Your task to perform on an android device: toggle priority inbox in the gmail app Image 0: 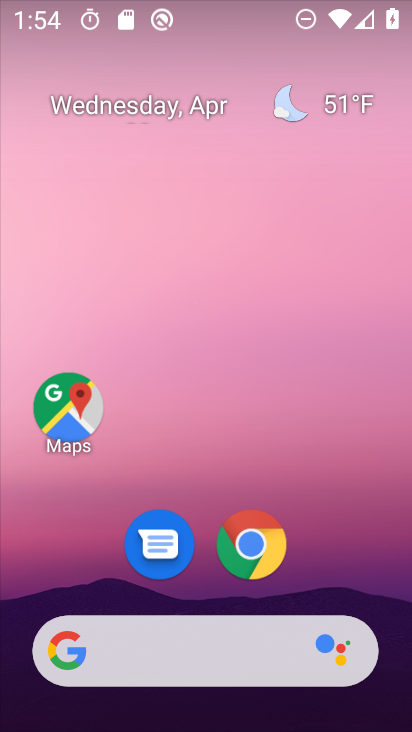
Step 0: drag from (322, 515) to (329, 167)
Your task to perform on an android device: toggle priority inbox in the gmail app Image 1: 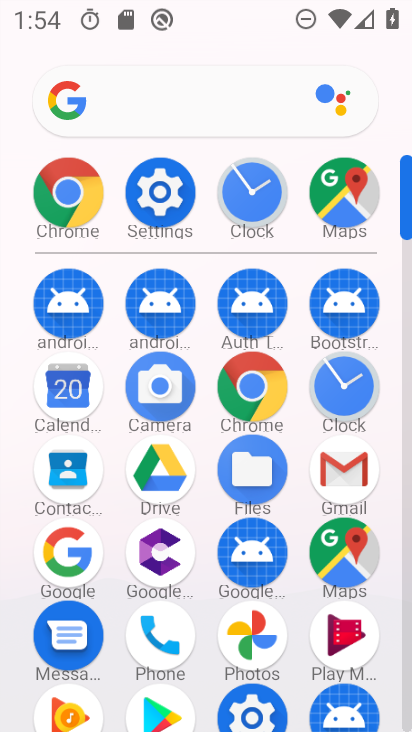
Step 1: click (341, 473)
Your task to perform on an android device: toggle priority inbox in the gmail app Image 2: 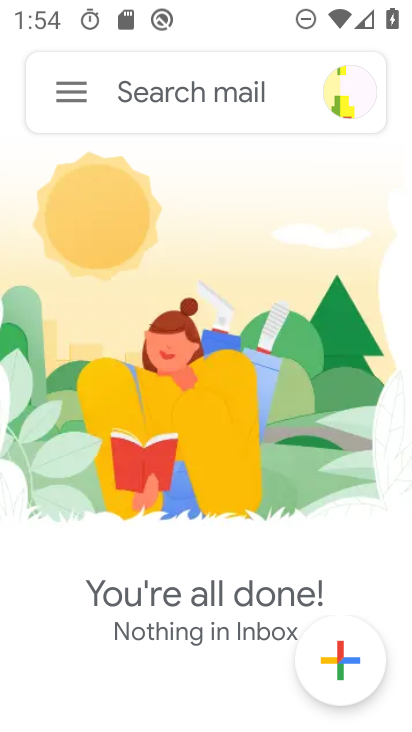
Step 2: click (69, 95)
Your task to perform on an android device: toggle priority inbox in the gmail app Image 3: 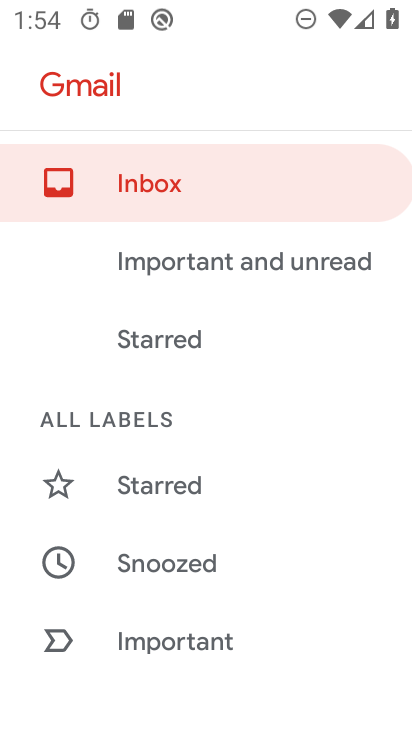
Step 3: drag from (340, 556) to (343, 397)
Your task to perform on an android device: toggle priority inbox in the gmail app Image 4: 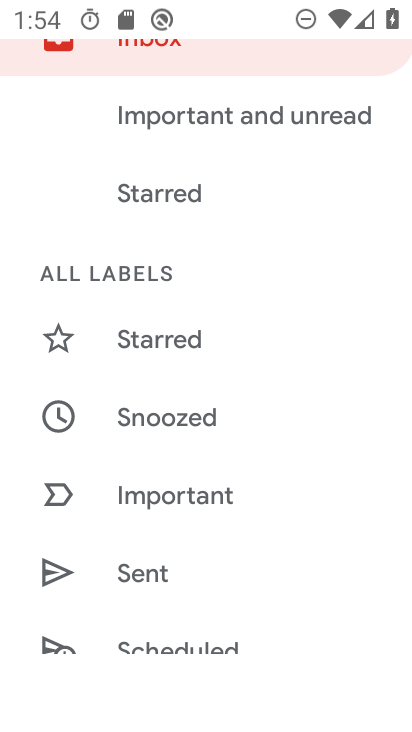
Step 4: drag from (340, 565) to (338, 382)
Your task to perform on an android device: toggle priority inbox in the gmail app Image 5: 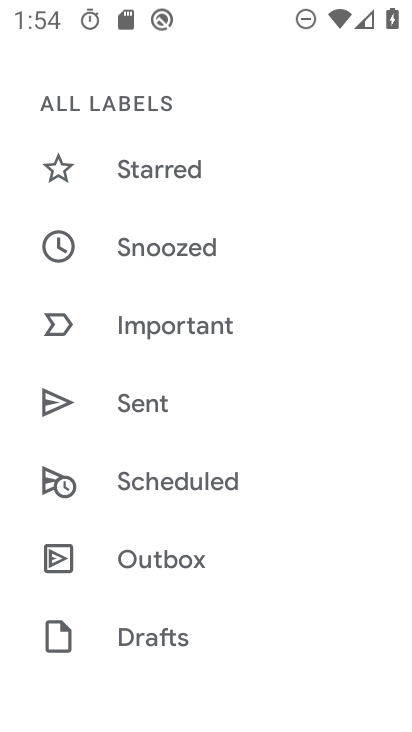
Step 5: drag from (319, 578) to (323, 416)
Your task to perform on an android device: toggle priority inbox in the gmail app Image 6: 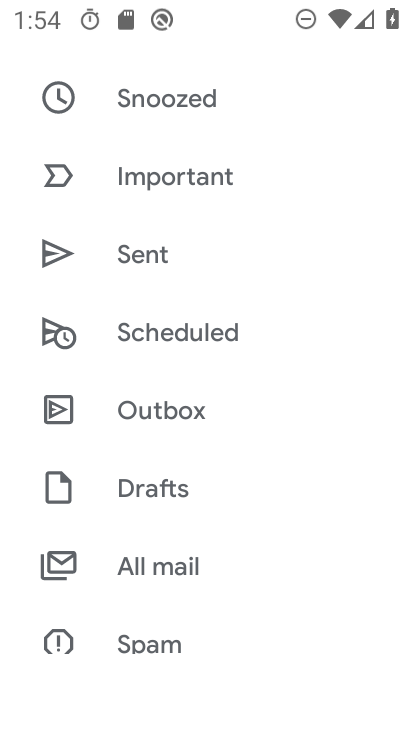
Step 6: drag from (321, 552) to (325, 393)
Your task to perform on an android device: toggle priority inbox in the gmail app Image 7: 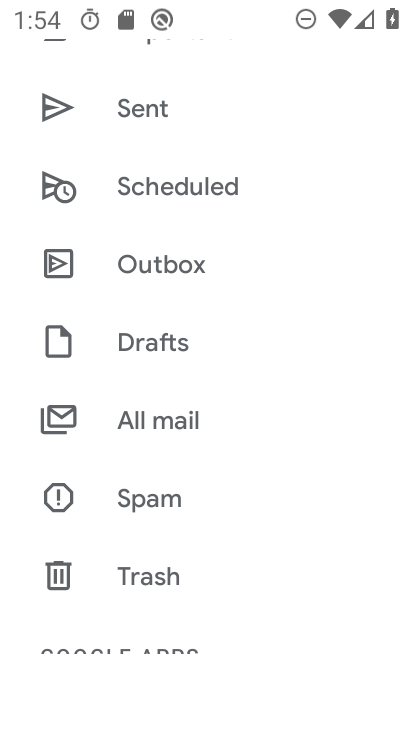
Step 7: drag from (308, 572) to (313, 440)
Your task to perform on an android device: toggle priority inbox in the gmail app Image 8: 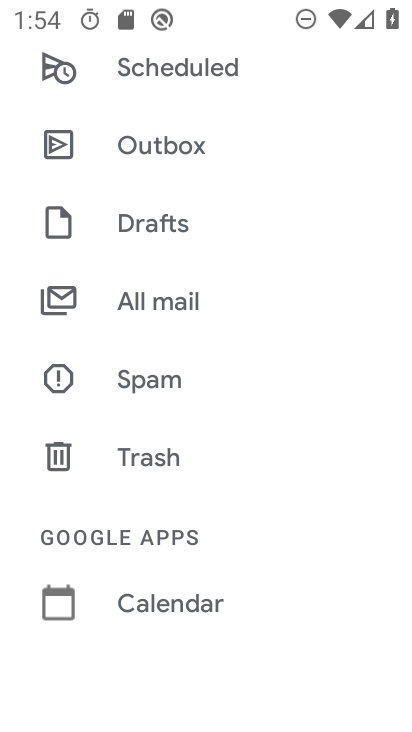
Step 8: drag from (294, 578) to (305, 457)
Your task to perform on an android device: toggle priority inbox in the gmail app Image 9: 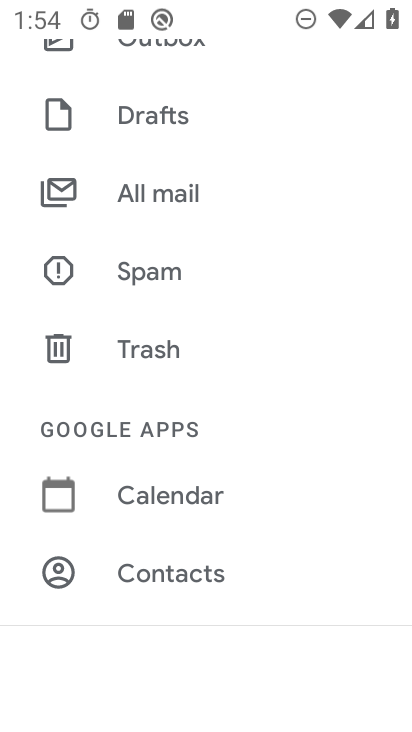
Step 9: drag from (322, 568) to (331, 397)
Your task to perform on an android device: toggle priority inbox in the gmail app Image 10: 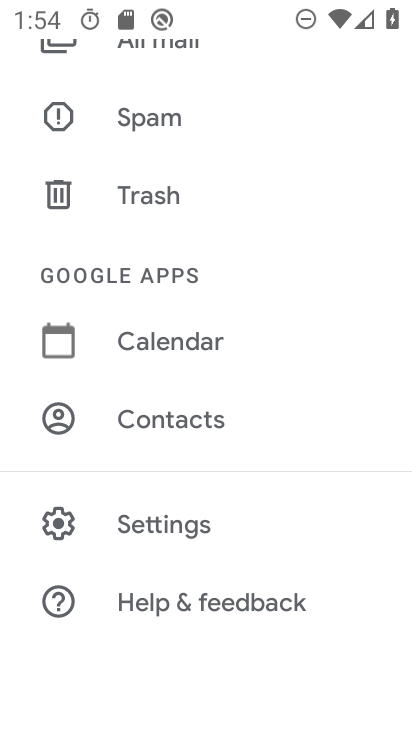
Step 10: drag from (334, 551) to (335, 403)
Your task to perform on an android device: toggle priority inbox in the gmail app Image 11: 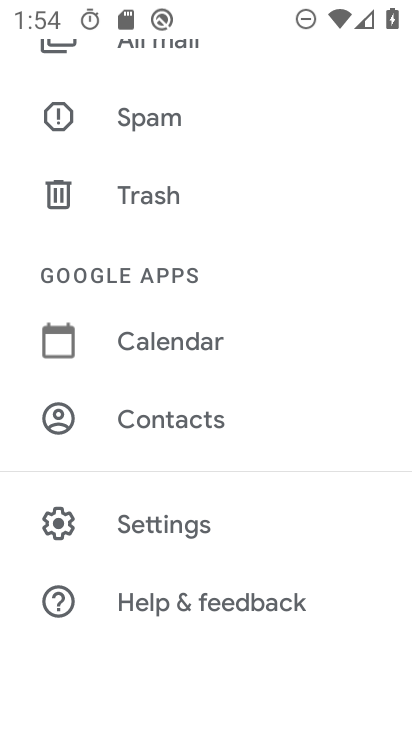
Step 11: click (190, 524)
Your task to perform on an android device: toggle priority inbox in the gmail app Image 12: 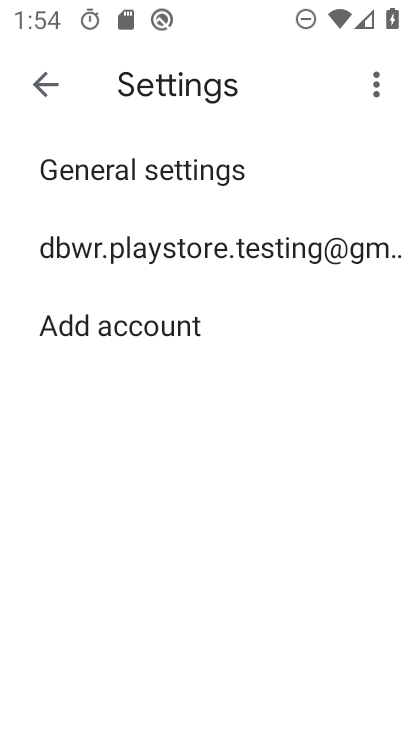
Step 12: click (269, 256)
Your task to perform on an android device: toggle priority inbox in the gmail app Image 13: 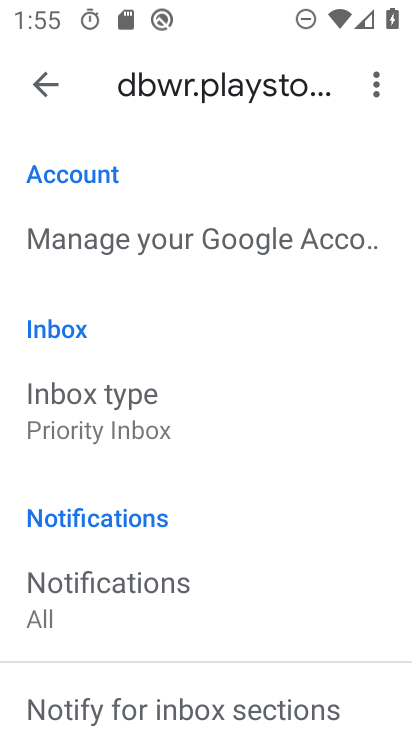
Step 13: drag from (279, 565) to (293, 415)
Your task to perform on an android device: toggle priority inbox in the gmail app Image 14: 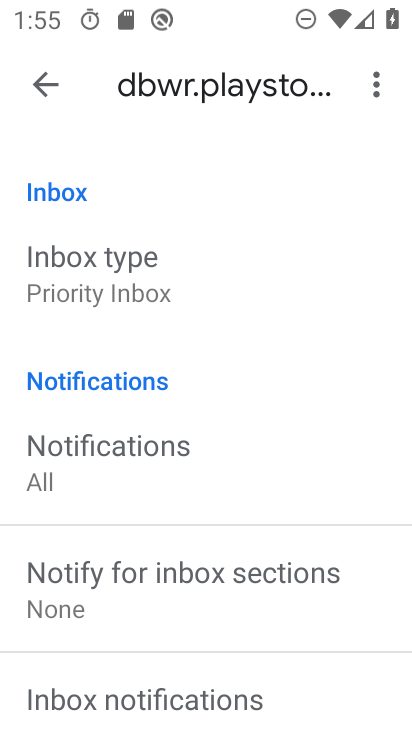
Step 14: drag from (365, 615) to (364, 421)
Your task to perform on an android device: toggle priority inbox in the gmail app Image 15: 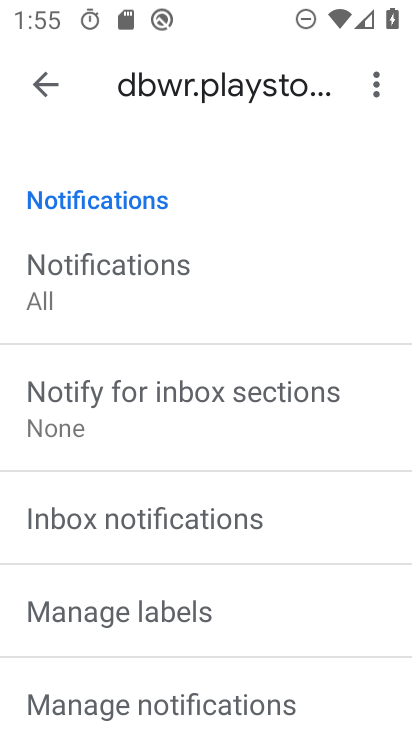
Step 15: drag from (359, 633) to (359, 479)
Your task to perform on an android device: toggle priority inbox in the gmail app Image 16: 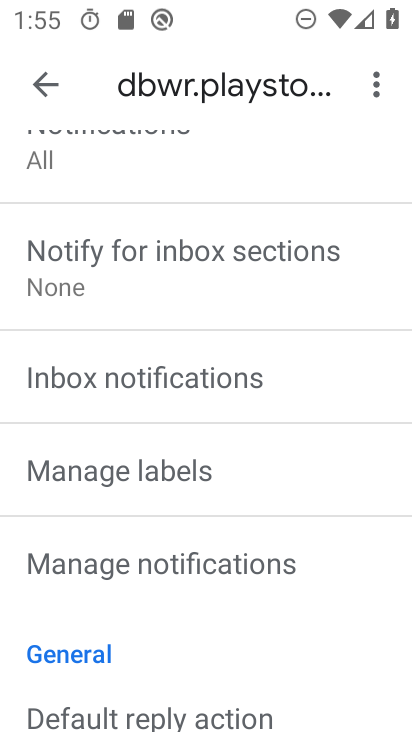
Step 16: drag from (351, 639) to (355, 471)
Your task to perform on an android device: toggle priority inbox in the gmail app Image 17: 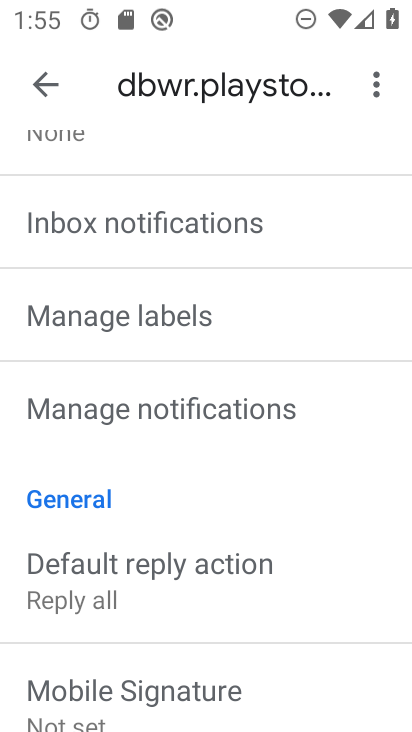
Step 17: drag from (343, 675) to (348, 481)
Your task to perform on an android device: toggle priority inbox in the gmail app Image 18: 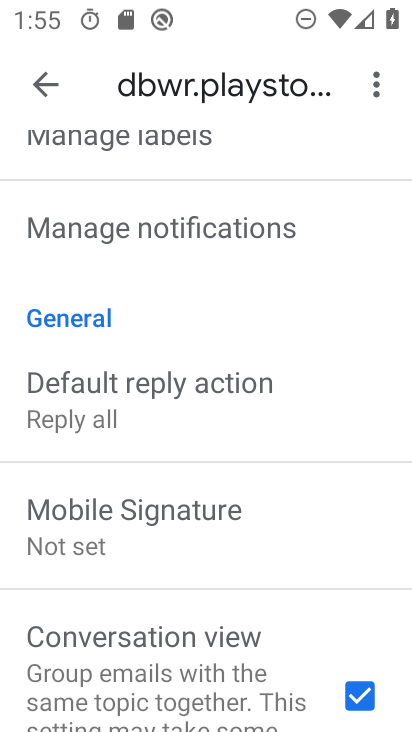
Step 18: drag from (335, 607) to (334, 437)
Your task to perform on an android device: toggle priority inbox in the gmail app Image 19: 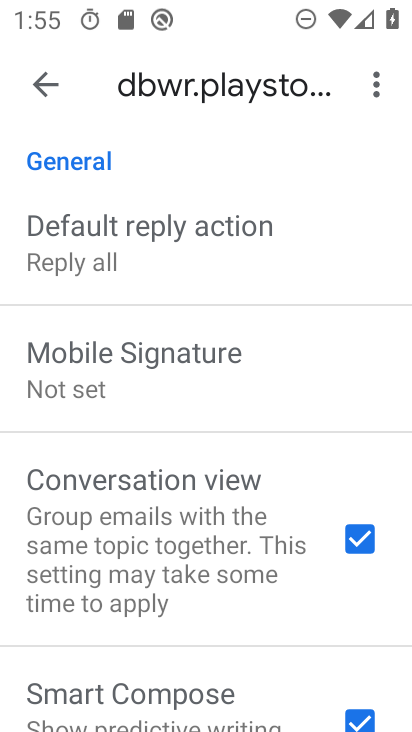
Step 19: drag from (299, 651) to (291, 454)
Your task to perform on an android device: toggle priority inbox in the gmail app Image 20: 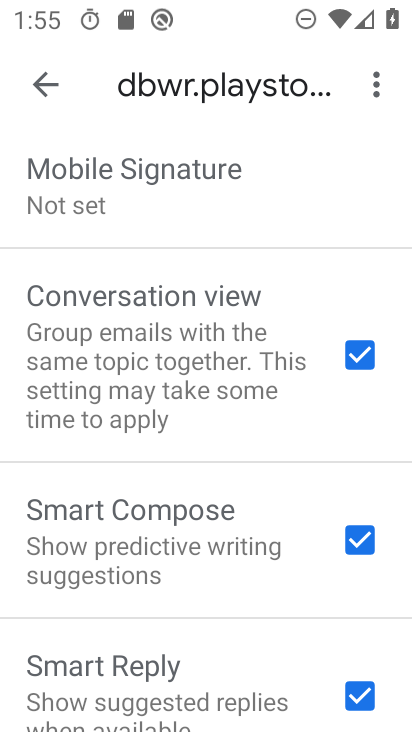
Step 20: drag from (301, 312) to (299, 496)
Your task to perform on an android device: toggle priority inbox in the gmail app Image 21: 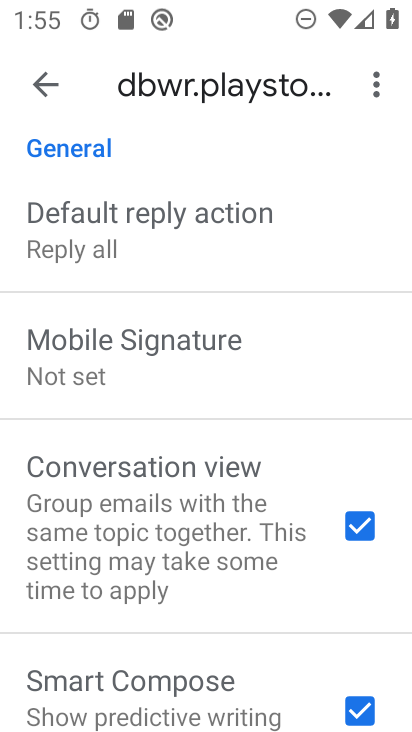
Step 21: drag from (310, 303) to (308, 490)
Your task to perform on an android device: toggle priority inbox in the gmail app Image 22: 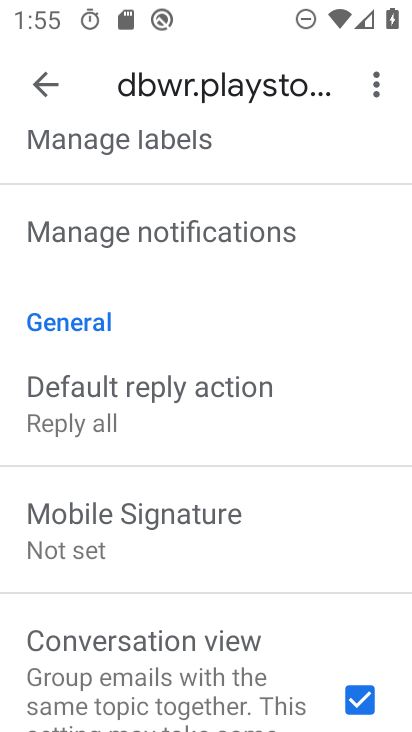
Step 22: drag from (304, 286) to (301, 471)
Your task to perform on an android device: toggle priority inbox in the gmail app Image 23: 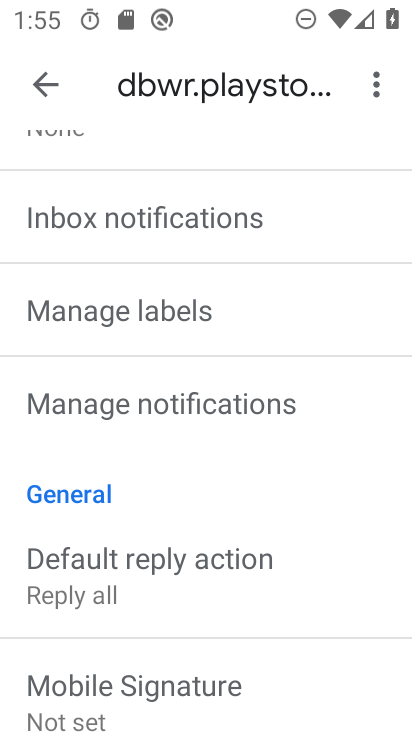
Step 23: drag from (301, 235) to (296, 493)
Your task to perform on an android device: toggle priority inbox in the gmail app Image 24: 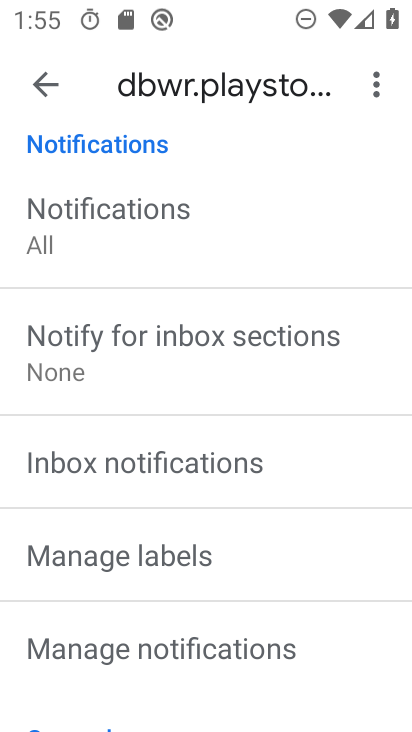
Step 24: drag from (284, 239) to (292, 444)
Your task to perform on an android device: toggle priority inbox in the gmail app Image 25: 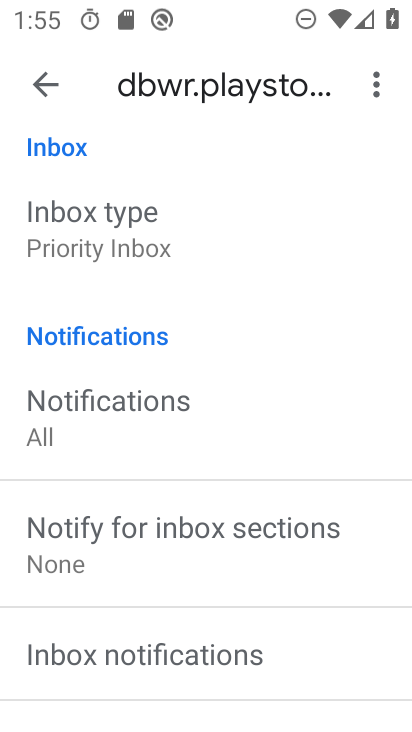
Step 25: drag from (288, 216) to (288, 377)
Your task to perform on an android device: toggle priority inbox in the gmail app Image 26: 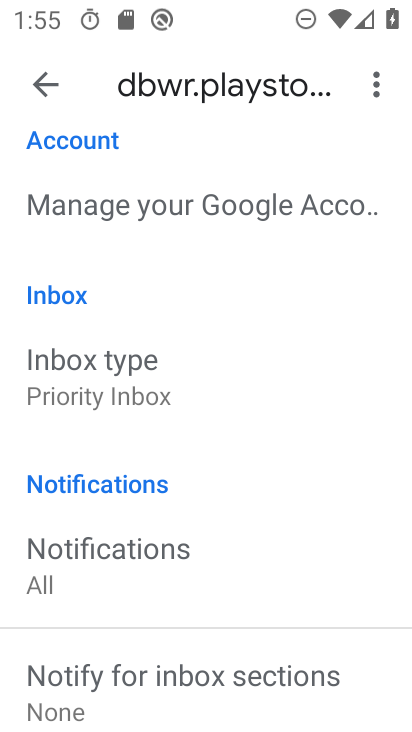
Step 26: click (88, 369)
Your task to perform on an android device: toggle priority inbox in the gmail app Image 27: 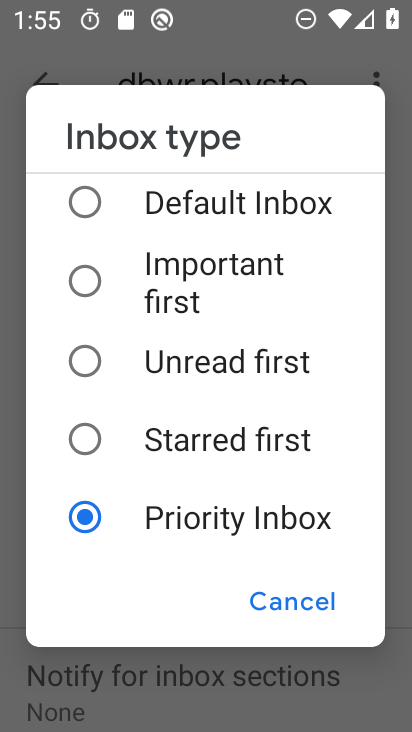
Step 27: task complete